Your task to perform on an android device: What's the time in New York? Image 0: 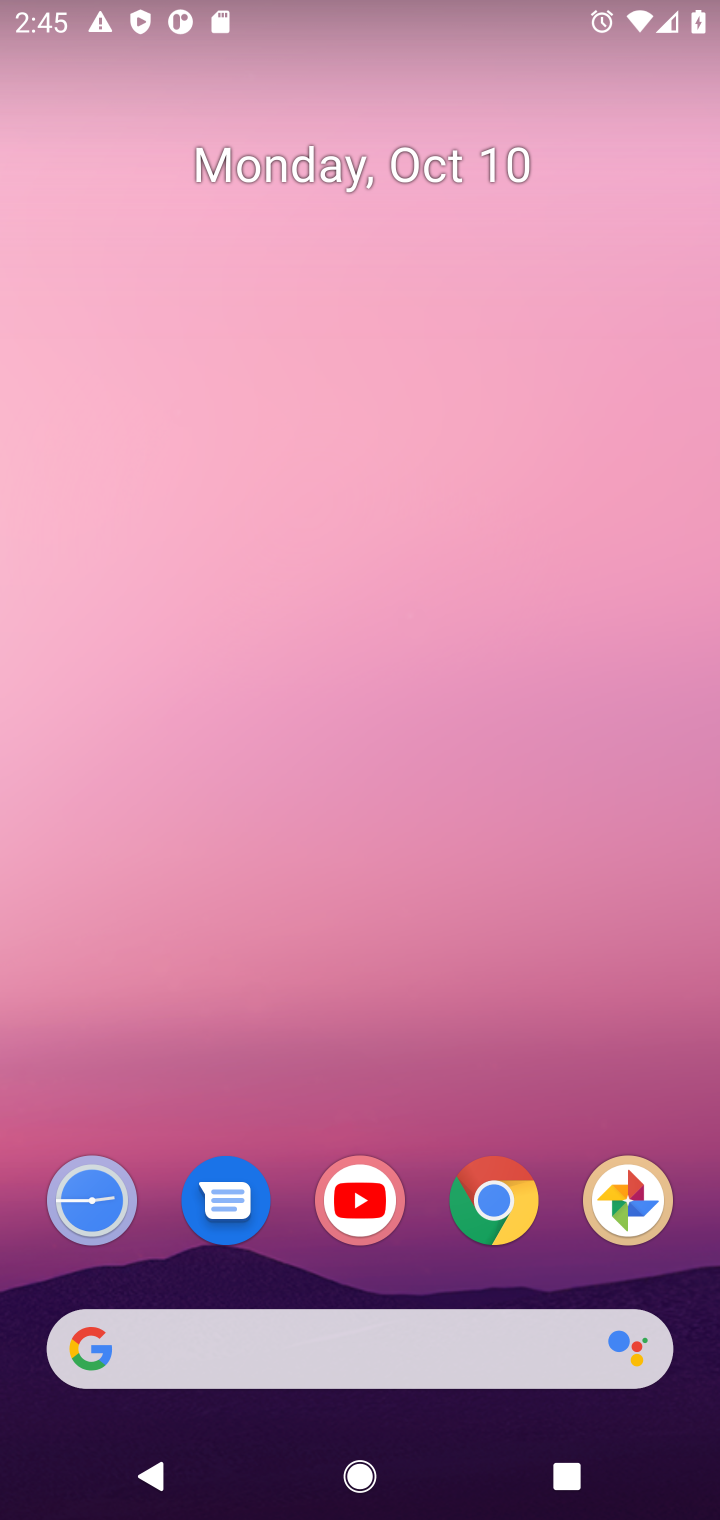
Step 0: click (510, 1213)
Your task to perform on an android device: What's the time in New York? Image 1: 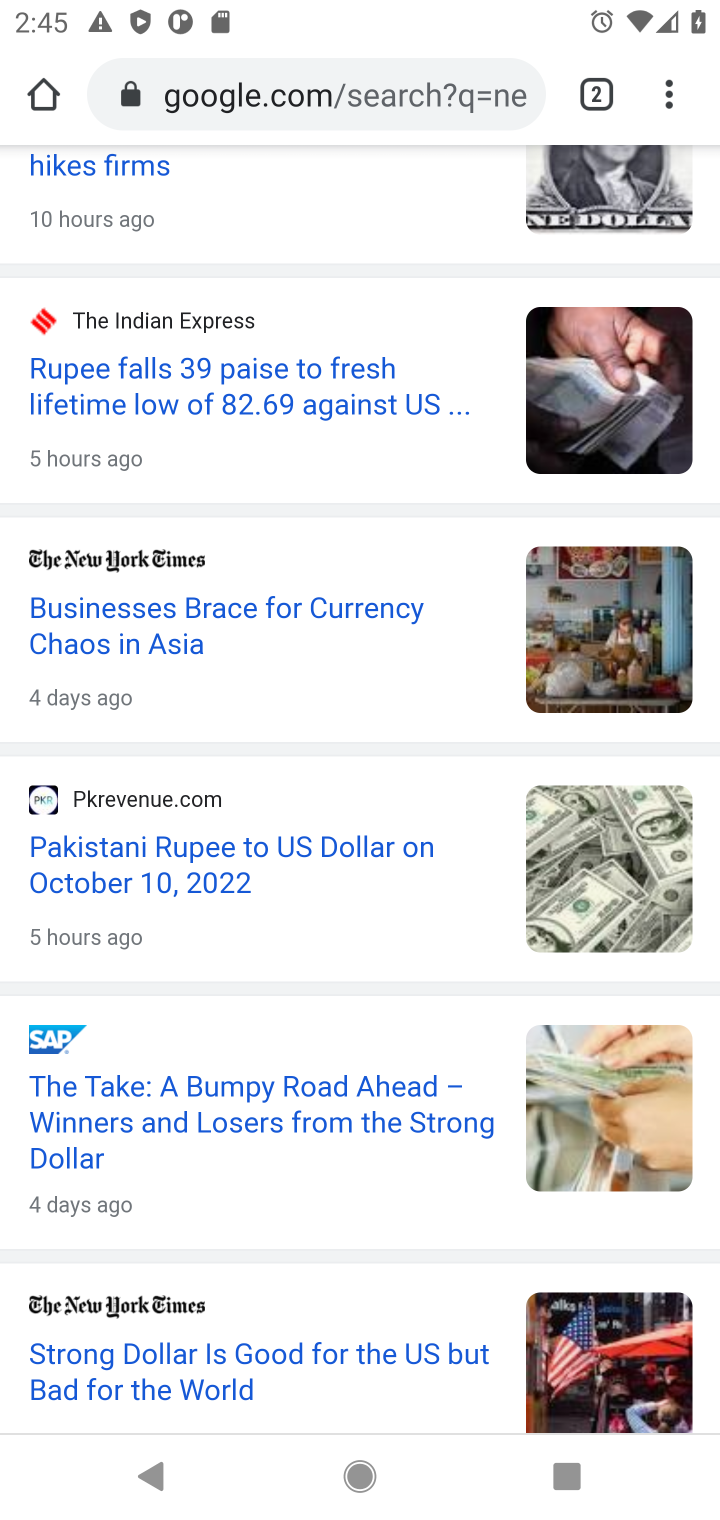
Step 1: click (441, 88)
Your task to perform on an android device: What's the time in New York? Image 2: 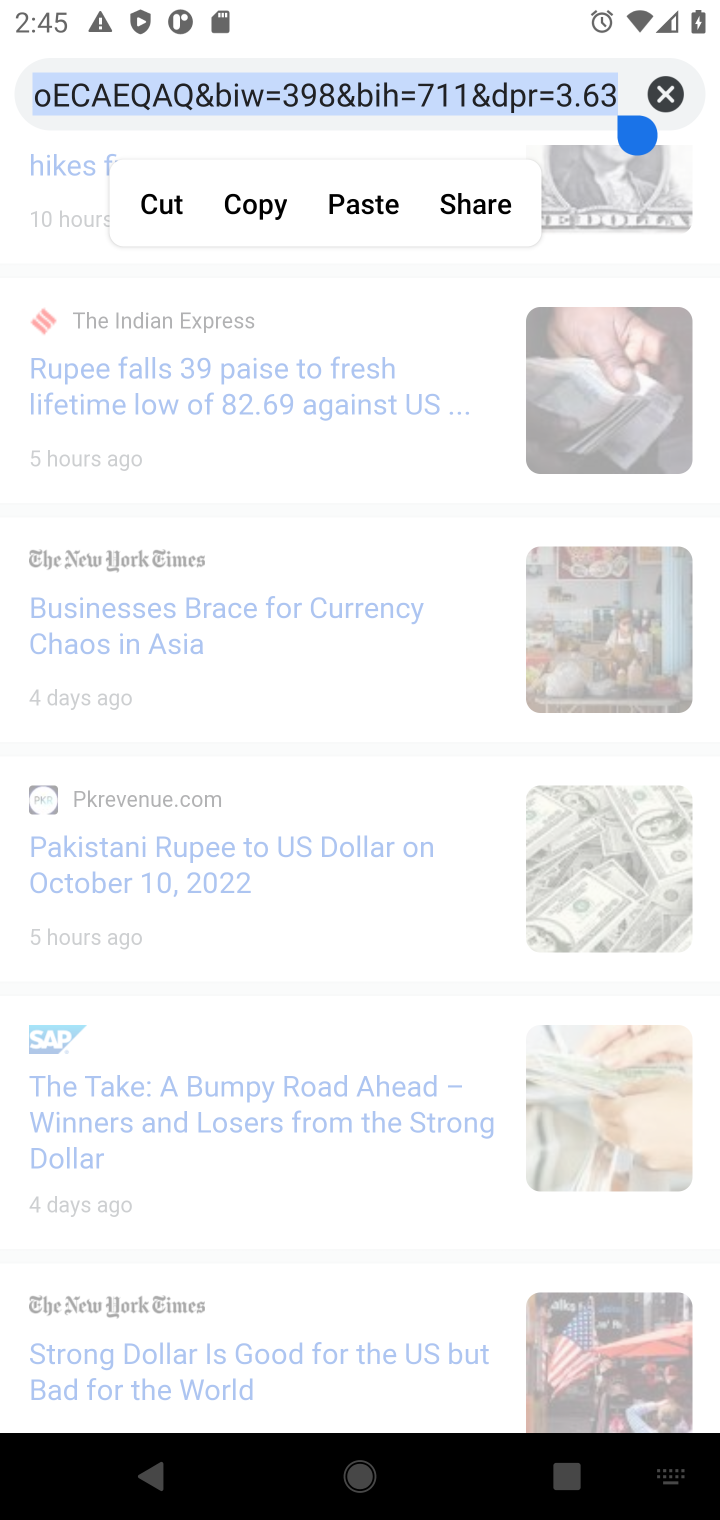
Step 2: type "time in New York"
Your task to perform on an android device: What's the time in New York? Image 3: 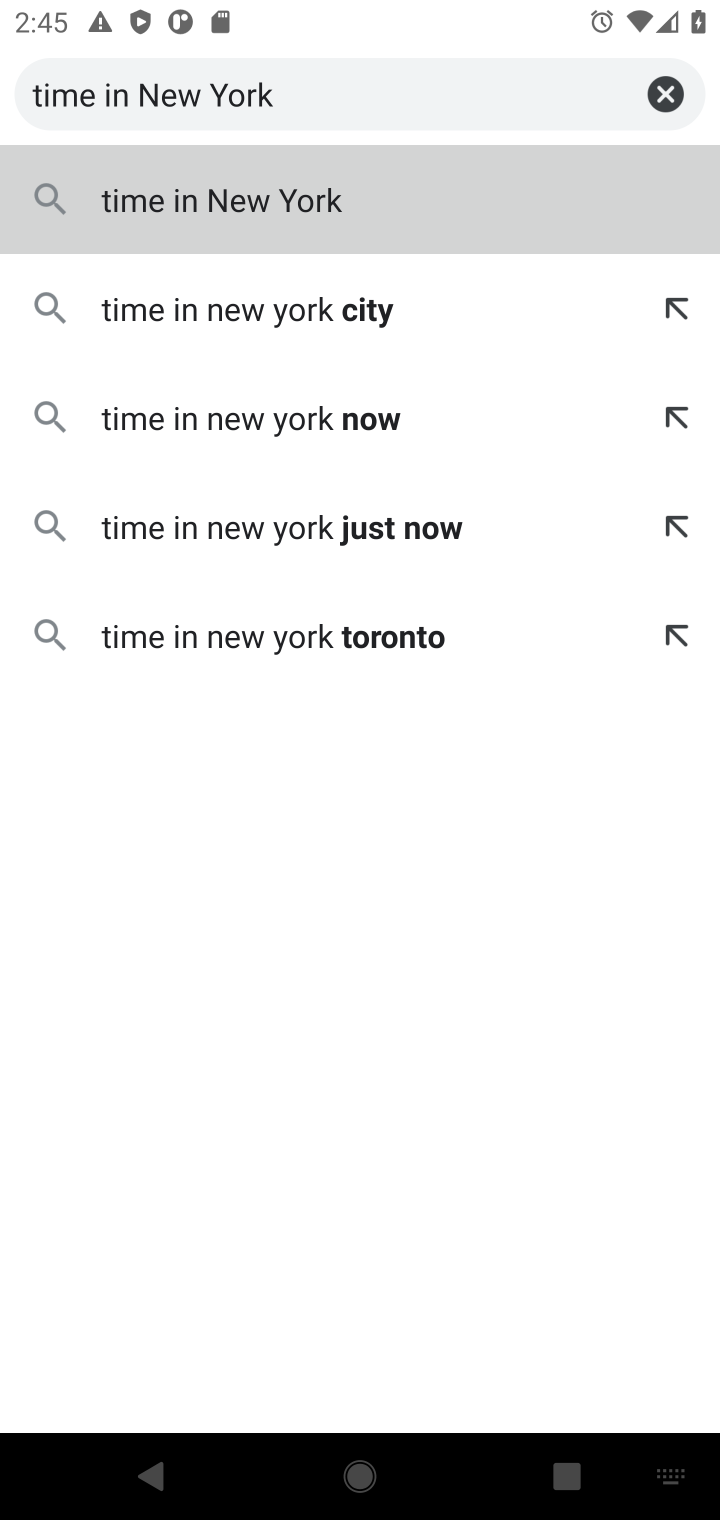
Step 3: type ""
Your task to perform on an android device: What's the time in New York? Image 4: 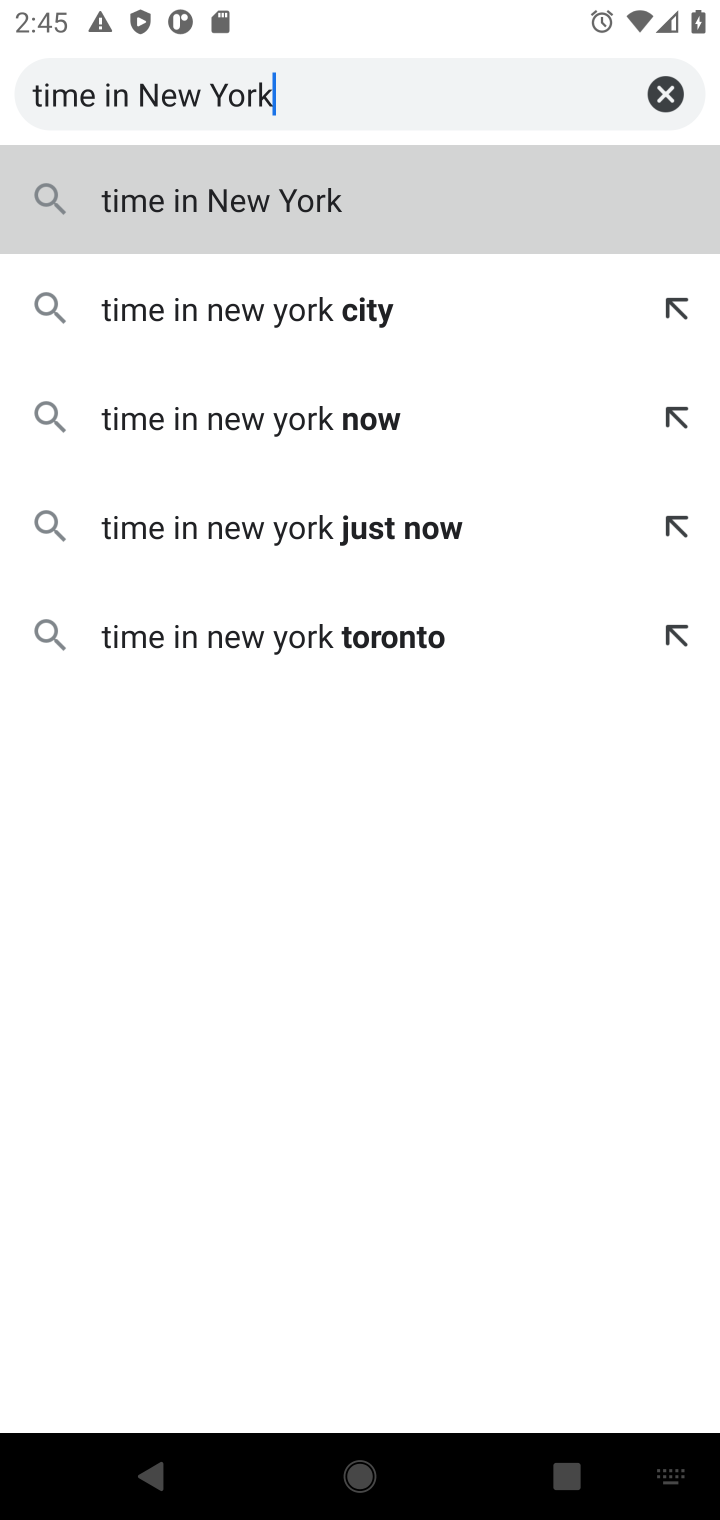
Step 4: click (184, 196)
Your task to perform on an android device: What's the time in New York? Image 5: 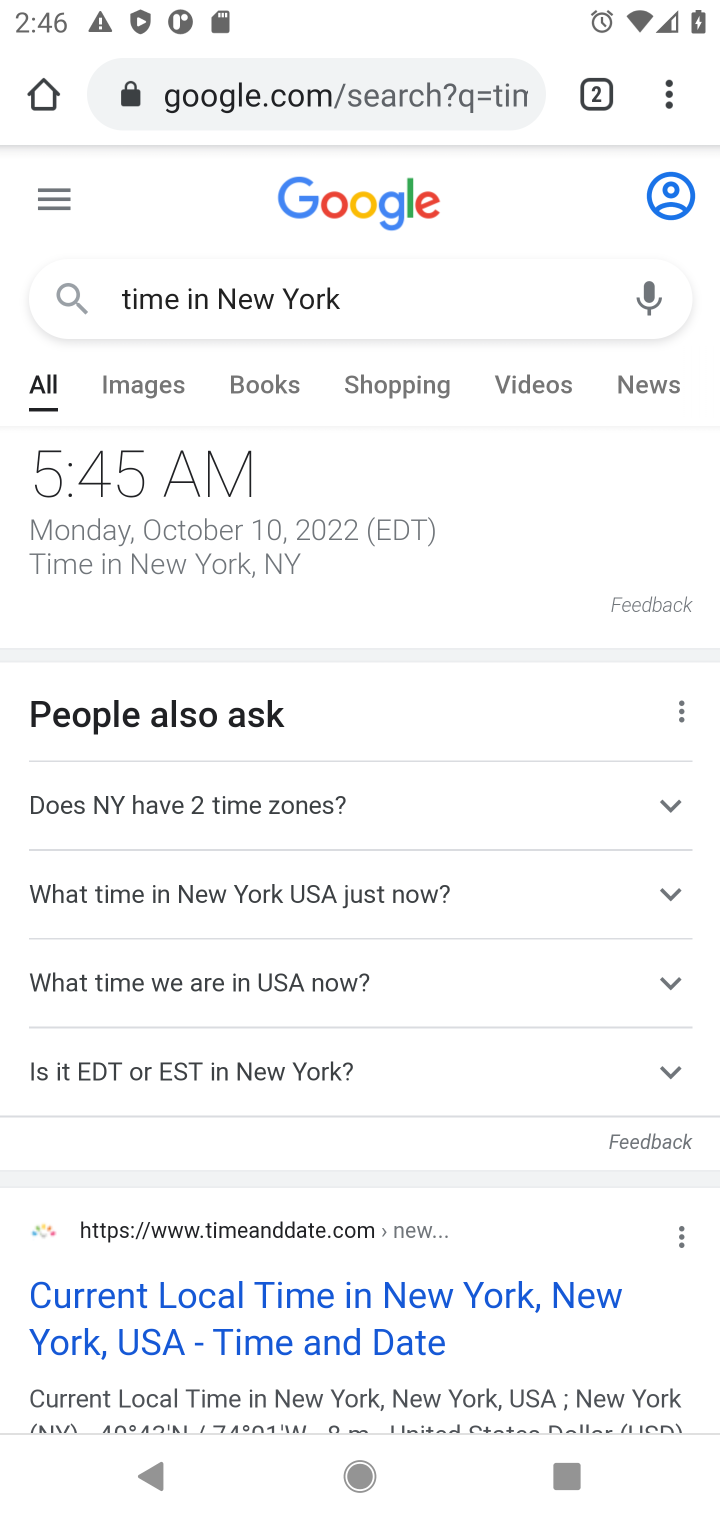
Step 5: task complete